Your task to perform on an android device: change text size in settings app Image 0: 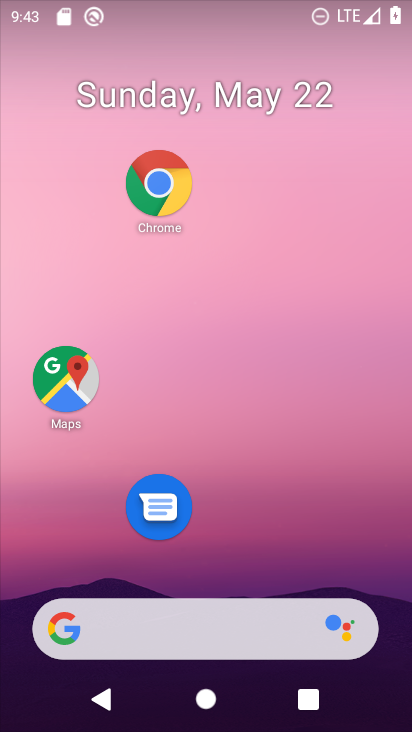
Step 0: drag from (256, 686) to (281, 1)
Your task to perform on an android device: change text size in settings app Image 1: 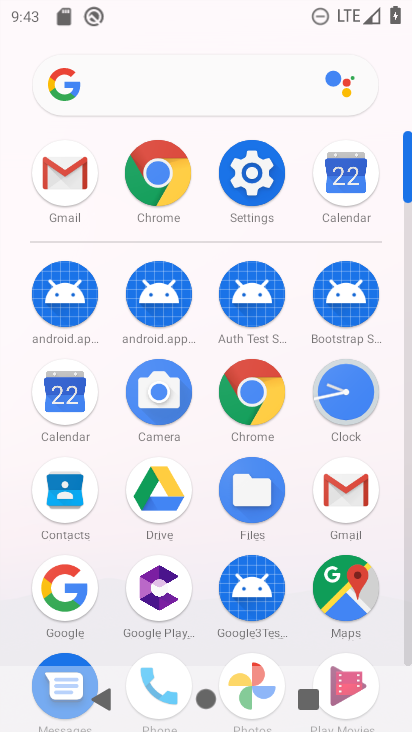
Step 1: click (254, 179)
Your task to perform on an android device: change text size in settings app Image 2: 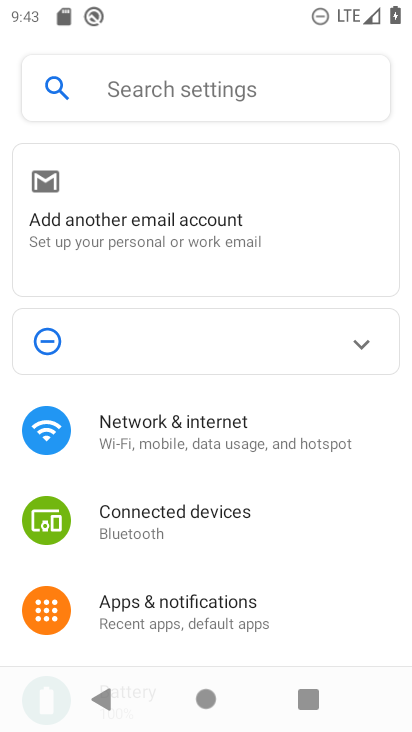
Step 2: drag from (276, 604) to (270, 16)
Your task to perform on an android device: change text size in settings app Image 3: 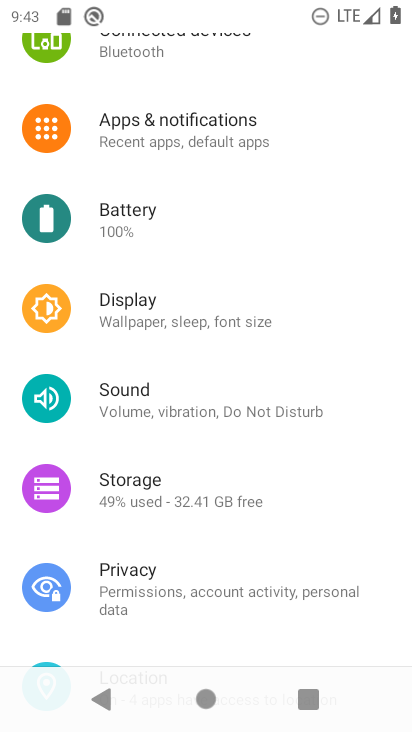
Step 3: click (243, 303)
Your task to perform on an android device: change text size in settings app Image 4: 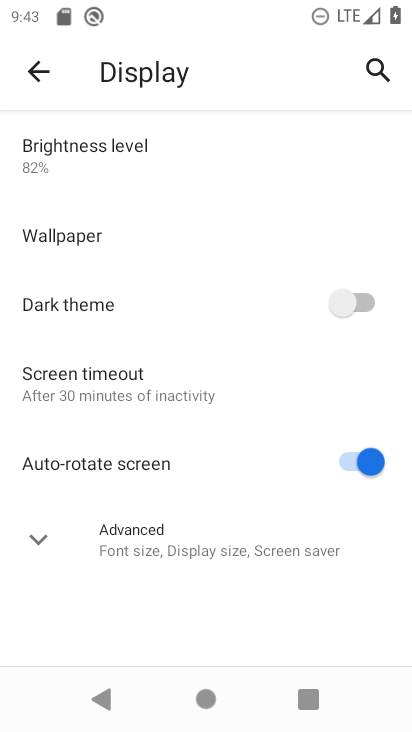
Step 4: click (147, 545)
Your task to perform on an android device: change text size in settings app Image 5: 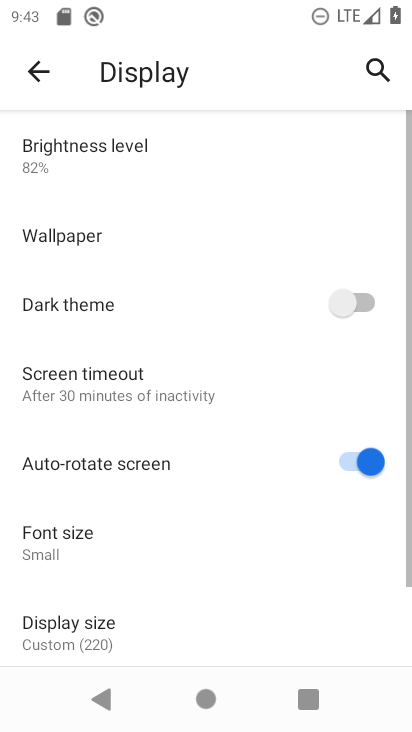
Step 5: click (110, 532)
Your task to perform on an android device: change text size in settings app Image 6: 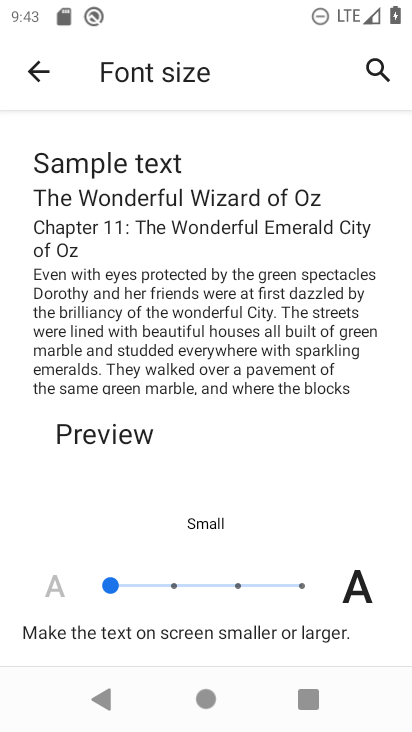
Step 6: click (175, 589)
Your task to perform on an android device: change text size in settings app Image 7: 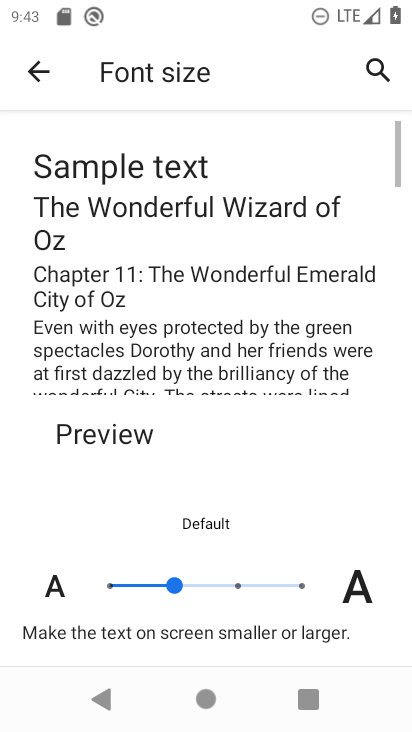
Step 7: task complete